Your task to perform on an android device: set the stopwatch Image 0: 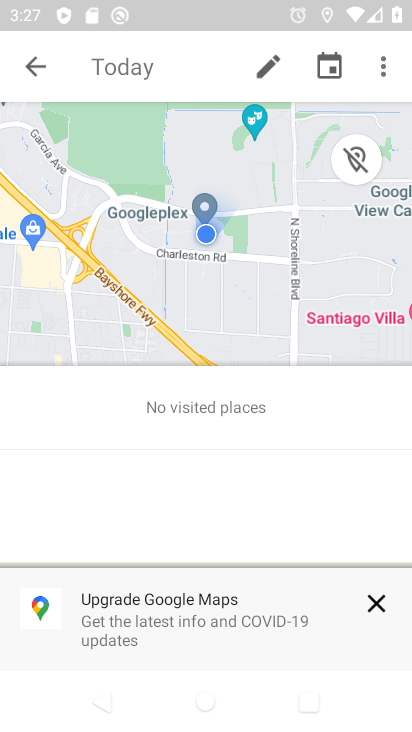
Step 0: press home button
Your task to perform on an android device: set the stopwatch Image 1: 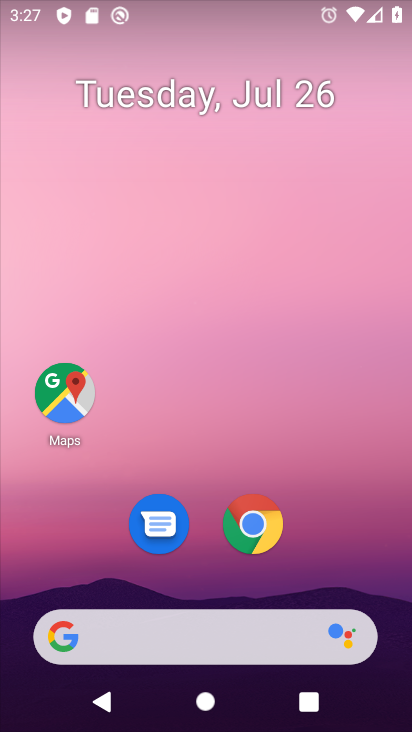
Step 1: drag from (315, 551) to (359, 50)
Your task to perform on an android device: set the stopwatch Image 2: 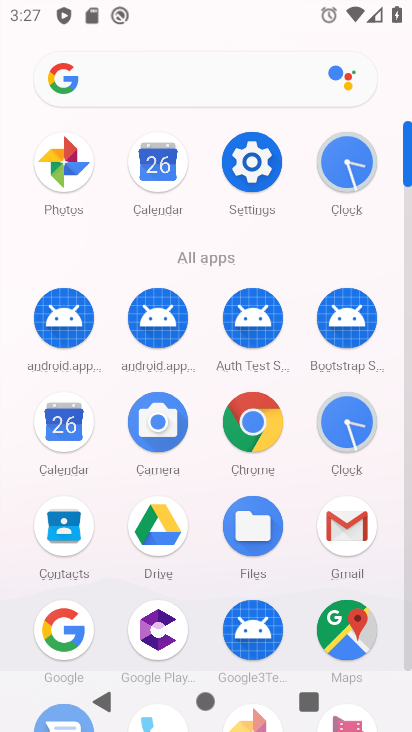
Step 2: click (362, 151)
Your task to perform on an android device: set the stopwatch Image 3: 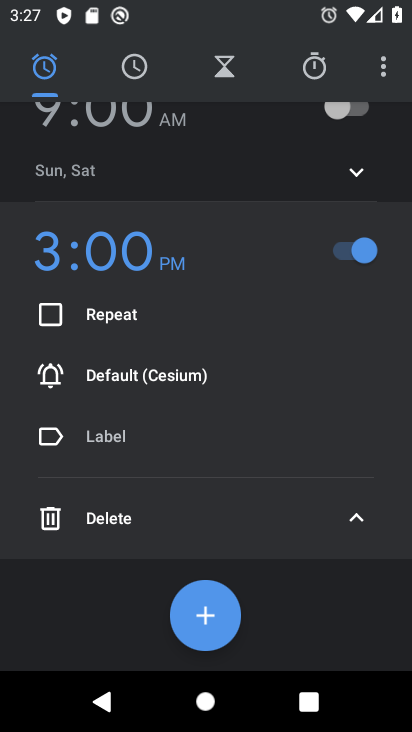
Step 3: click (321, 66)
Your task to perform on an android device: set the stopwatch Image 4: 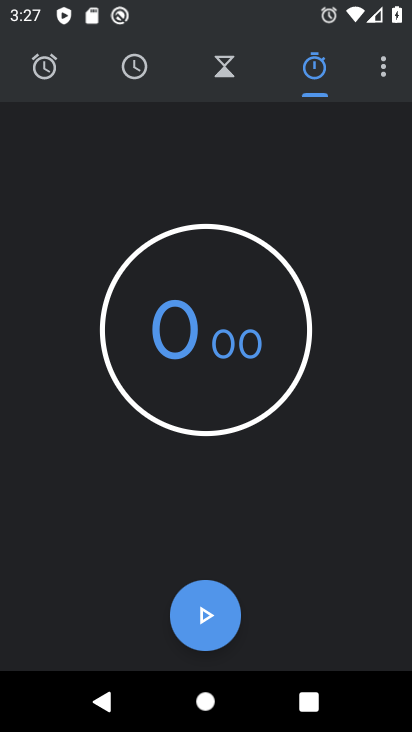
Step 4: task complete